Your task to perform on an android device: open app "Walmart Shopping & Grocery" (install if not already installed) Image 0: 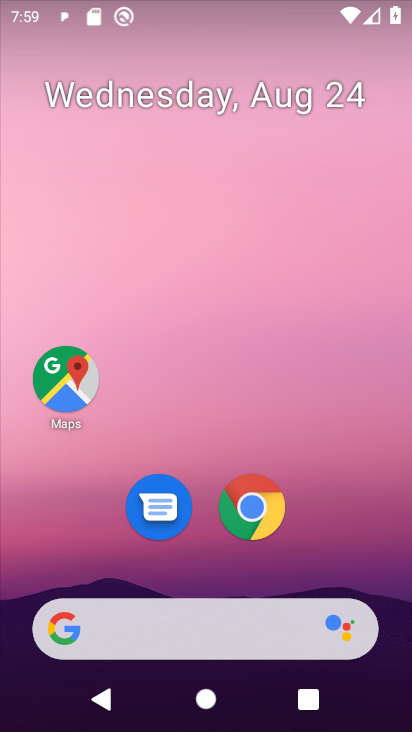
Step 0: press home button
Your task to perform on an android device: open app "Walmart Shopping & Grocery" (install if not already installed) Image 1: 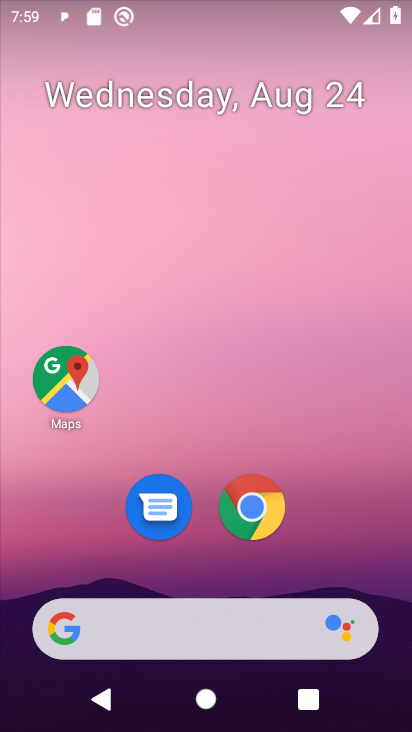
Step 1: drag from (380, 573) to (379, 74)
Your task to perform on an android device: open app "Walmart Shopping & Grocery" (install if not already installed) Image 2: 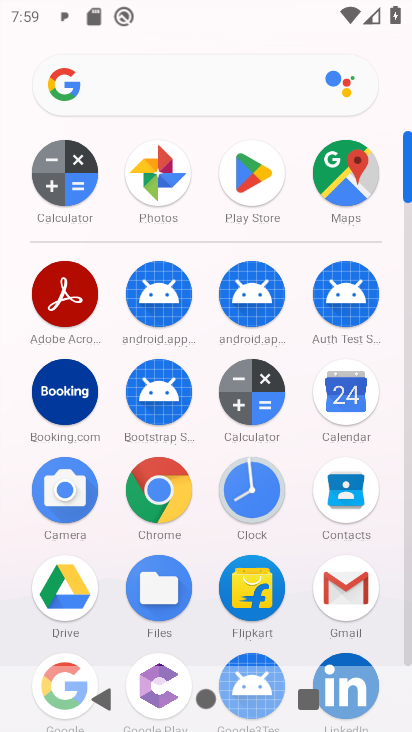
Step 2: click (255, 166)
Your task to perform on an android device: open app "Walmart Shopping & Grocery" (install if not already installed) Image 3: 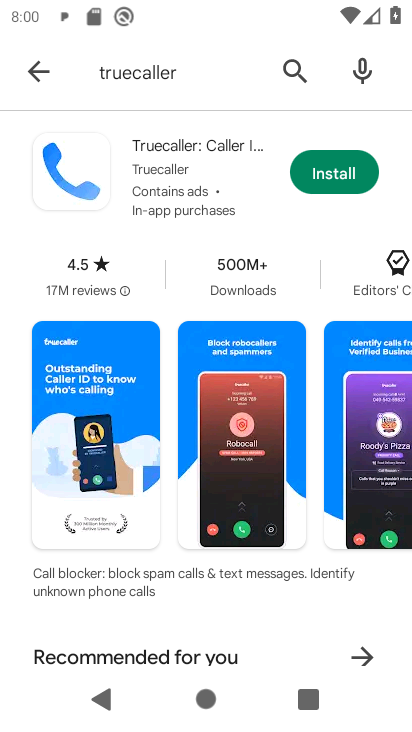
Step 3: press back button
Your task to perform on an android device: open app "Walmart Shopping & Grocery" (install if not already installed) Image 4: 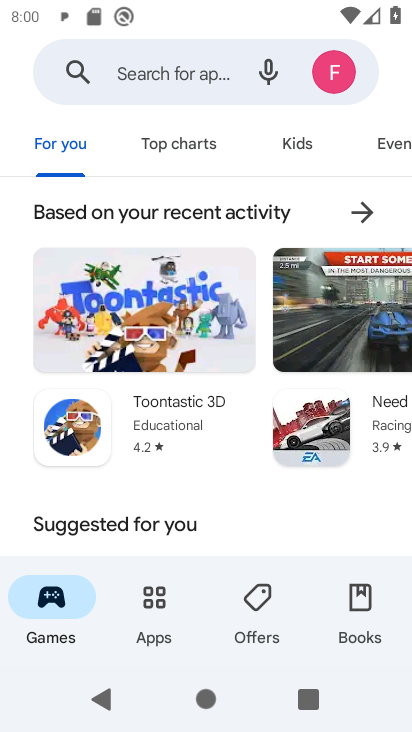
Step 4: click (171, 76)
Your task to perform on an android device: open app "Walmart Shopping & Grocery" (install if not already installed) Image 5: 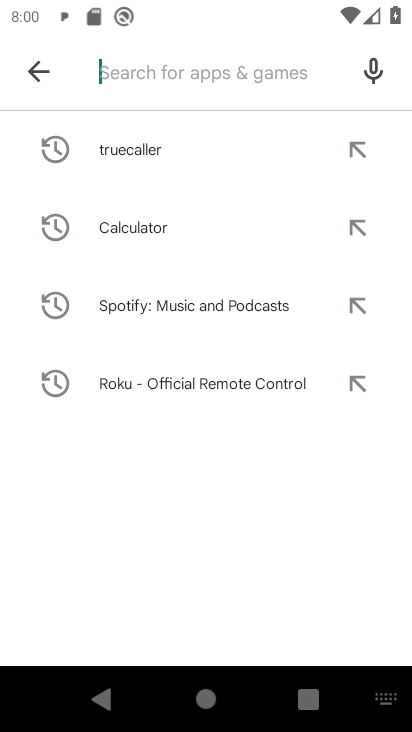
Step 5: type "Walmart Shopping & Grocery"
Your task to perform on an android device: open app "Walmart Shopping & Grocery" (install if not already installed) Image 6: 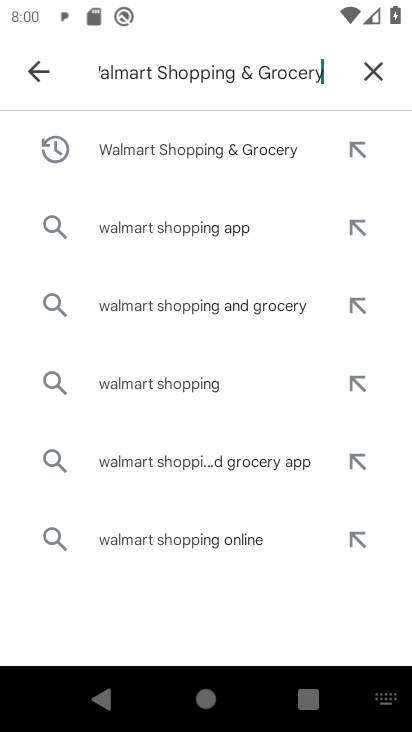
Step 6: press enter
Your task to perform on an android device: open app "Walmart Shopping & Grocery" (install if not already installed) Image 7: 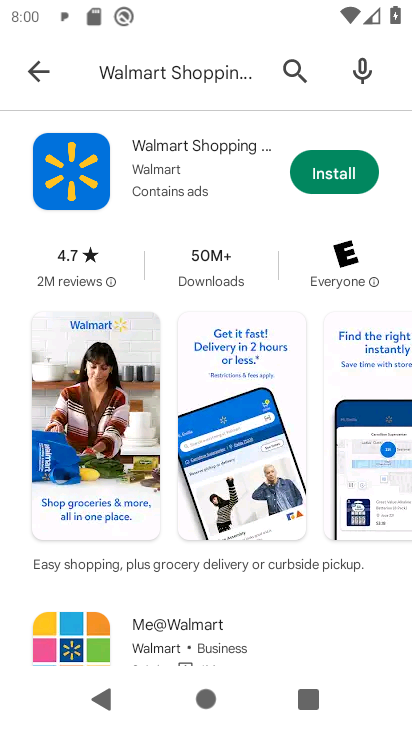
Step 7: click (336, 165)
Your task to perform on an android device: open app "Walmart Shopping & Grocery" (install if not already installed) Image 8: 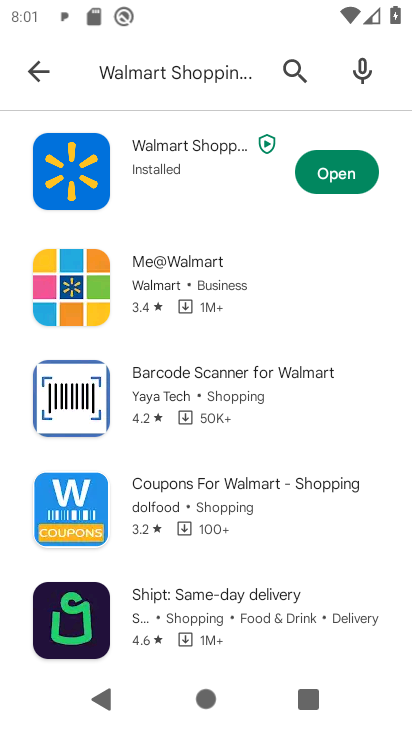
Step 8: click (341, 174)
Your task to perform on an android device: open app "Walmart Shopping & Grocery" (install if not already installed) Image 9: 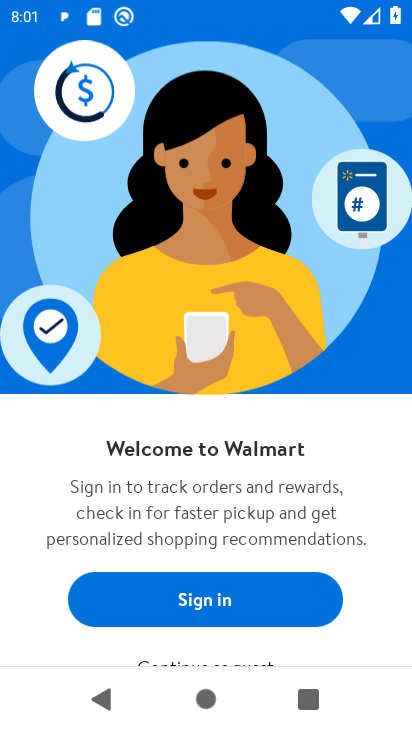
Step 9: task complete